Your task to perform on an android device: Open the web browser Image 0: 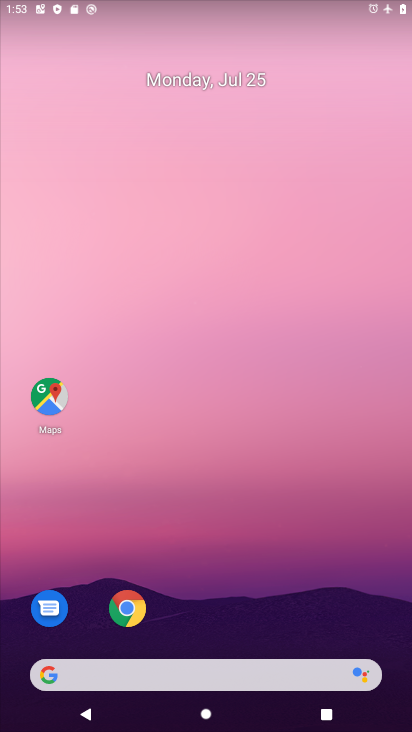
Step 0: click (258, 18)
Your task to perform on an android device: Open the web browser Image 1: 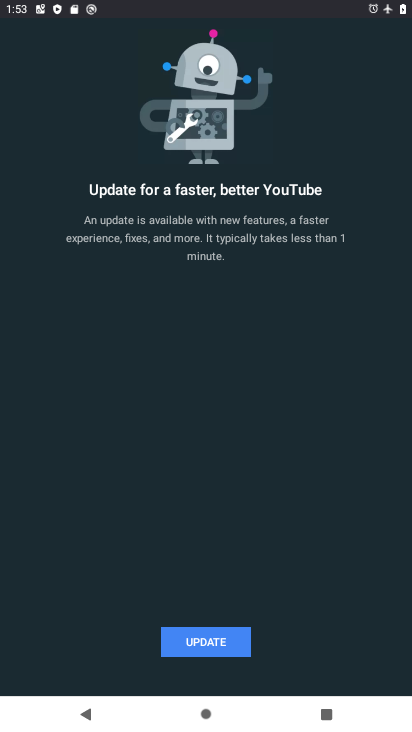
Step 1: press home button
Your task to perform on an android device: Open the web browser Image 2: 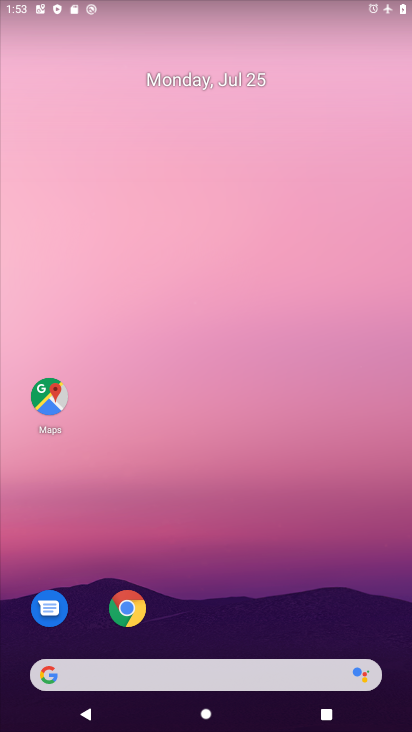
Step 2: drag from (313, 632) to (237, 131)
Your task to perform on an android device: Open the web browser Image 3: 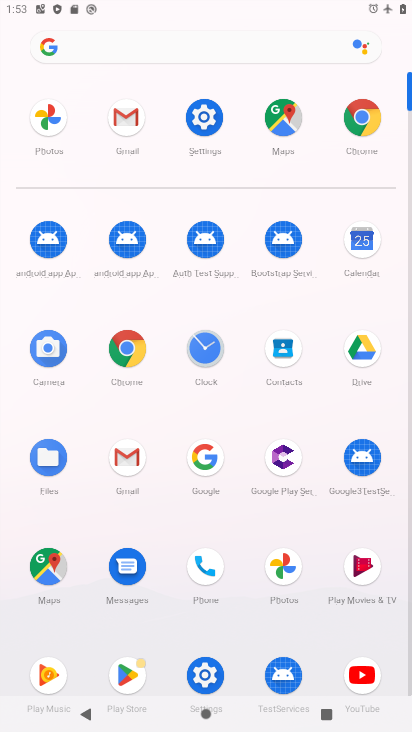
Step 3: click (361, 123)
Your task to perform on an android device: Open the web browser Image 4: 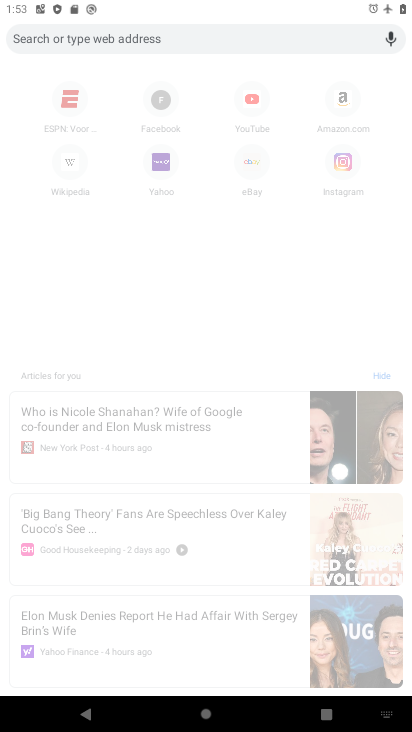
Step 4: task complete